Your task to perform on an android device: Go to notification settings Image 0: 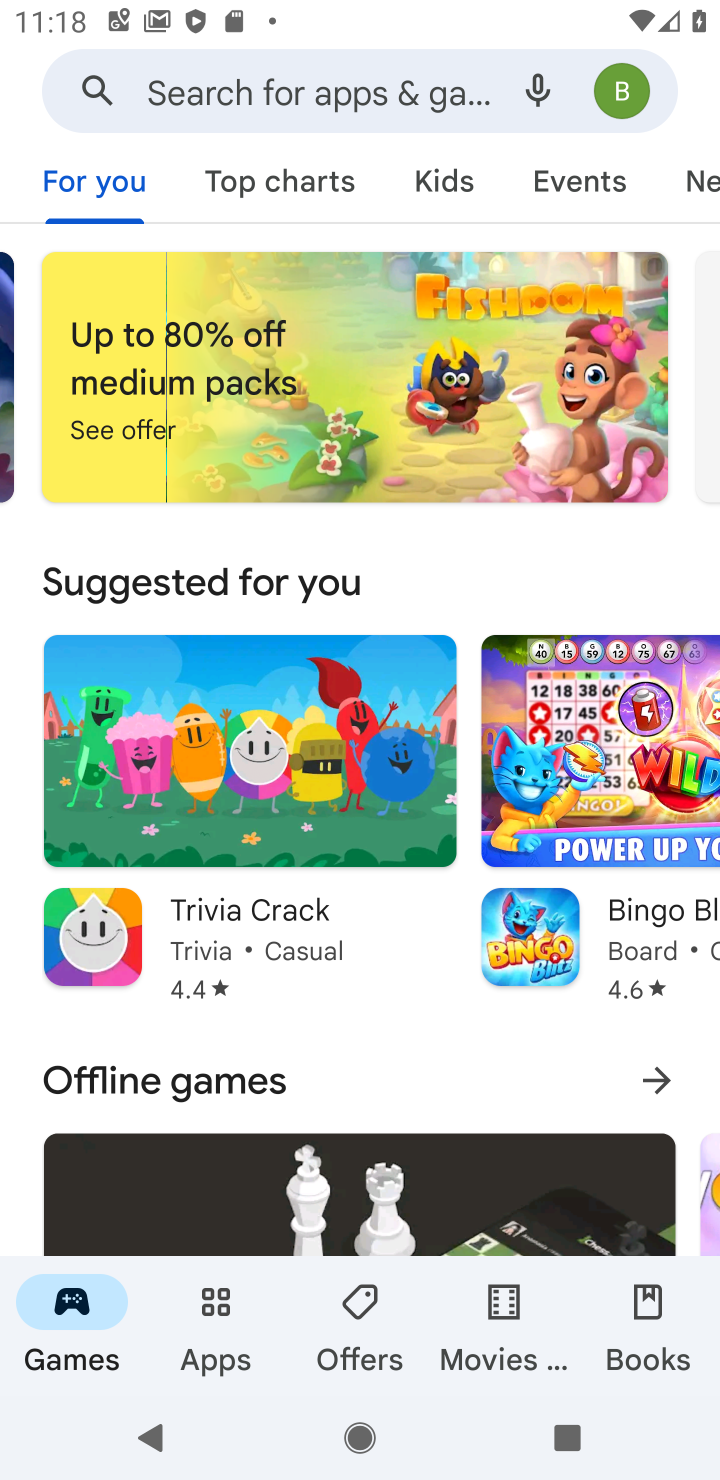
Step 0: press home button
Your task to perform on an android device: Go to notification settings Image 1: 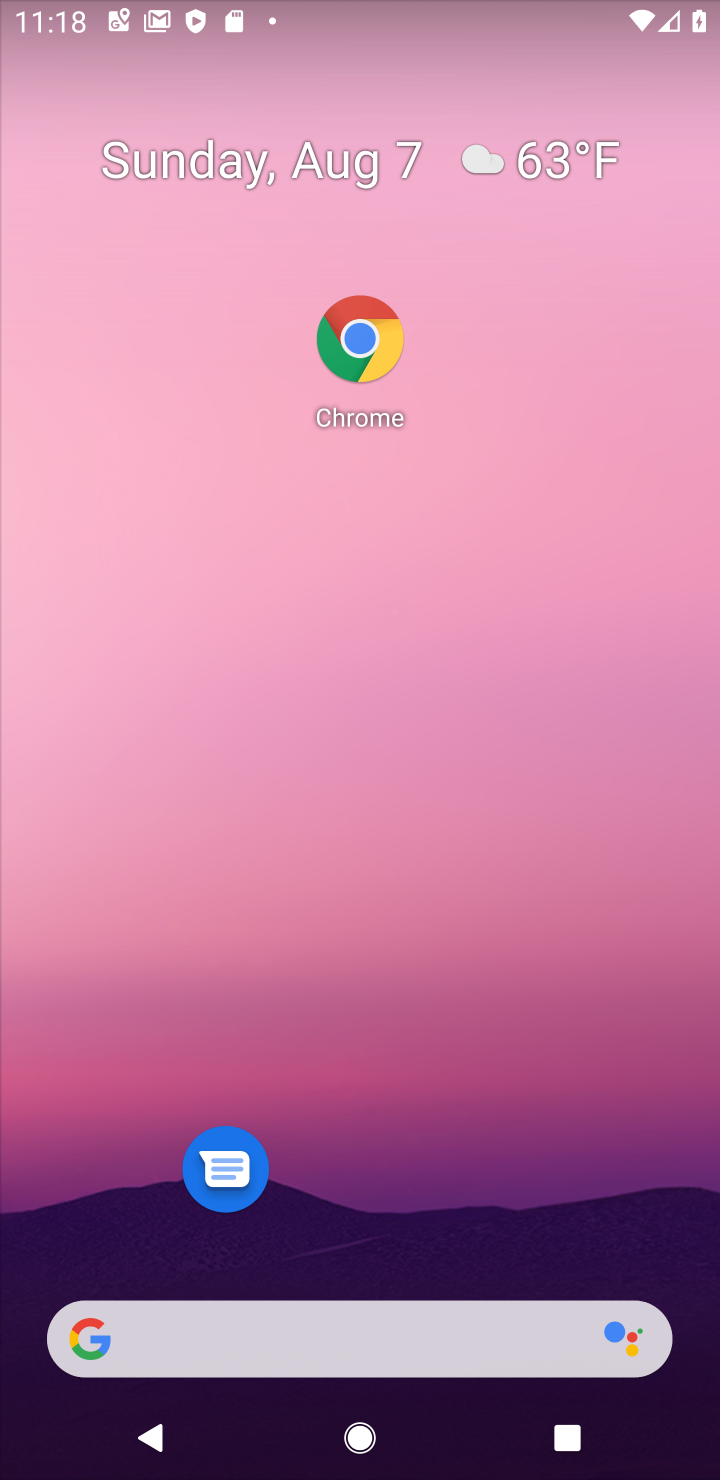
Step 1: drag from (314, 1132) to (302, 163)
Your task to perform on an android device: Go to notification settings Image 2: 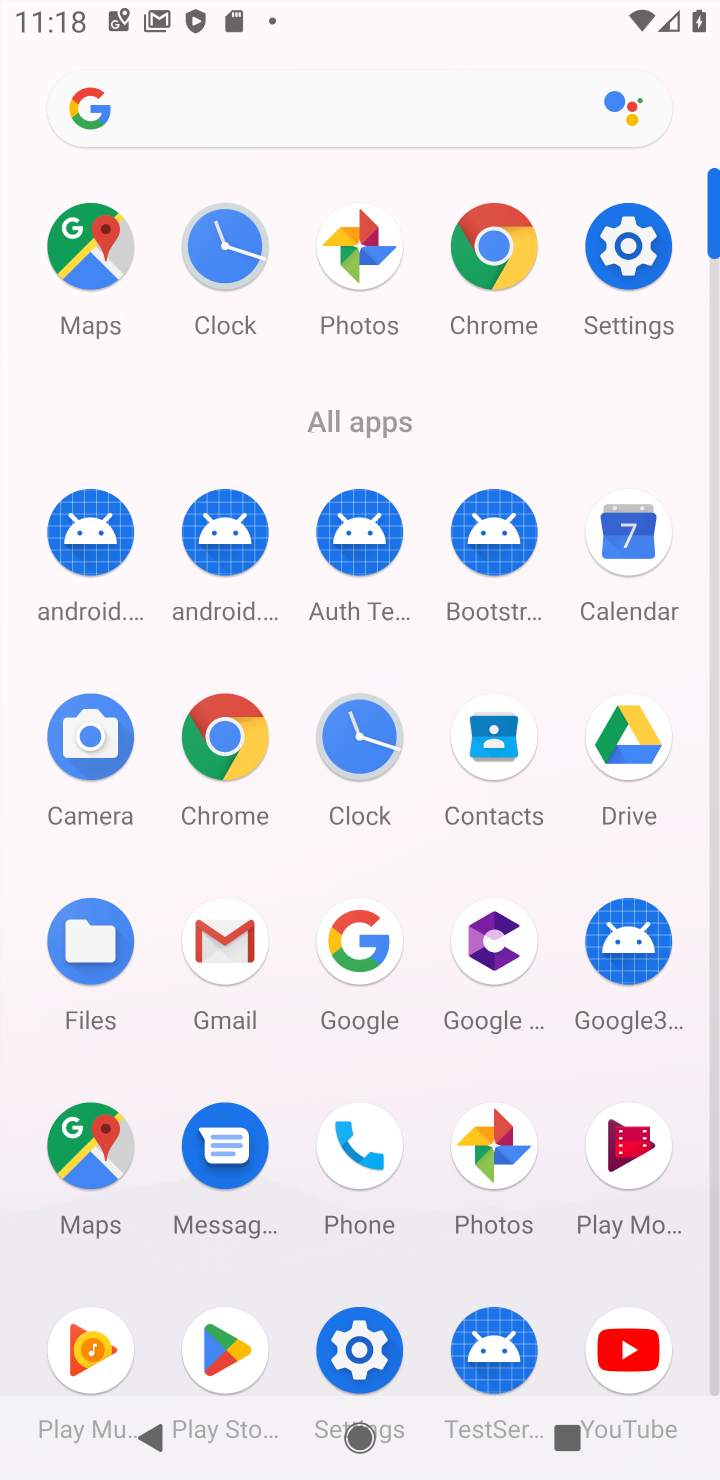
Step 2: click (651, 243)
Your task to perform on an android device: Go to notification settings Image 3: 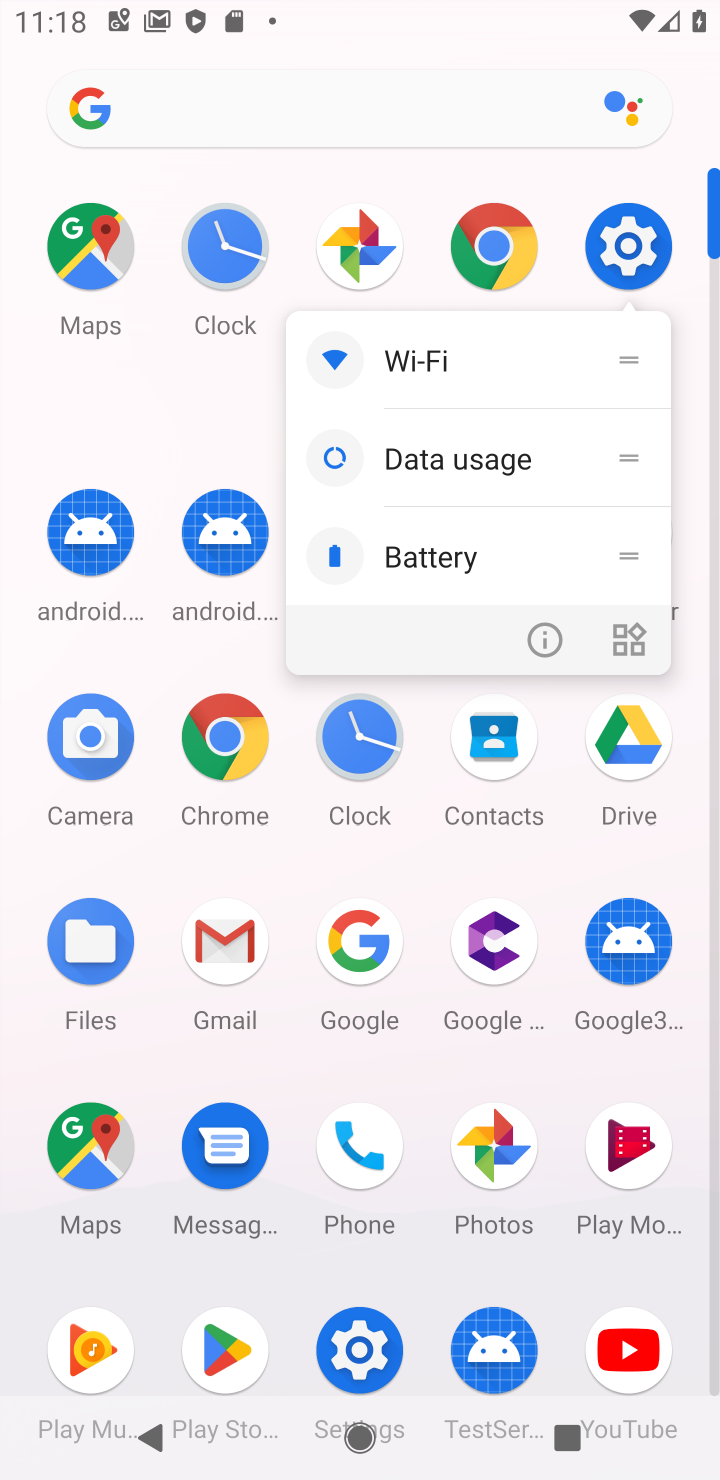
Step 3: click (651, 239)
Your task to perform on an android device: Go to notification settings Image 4: 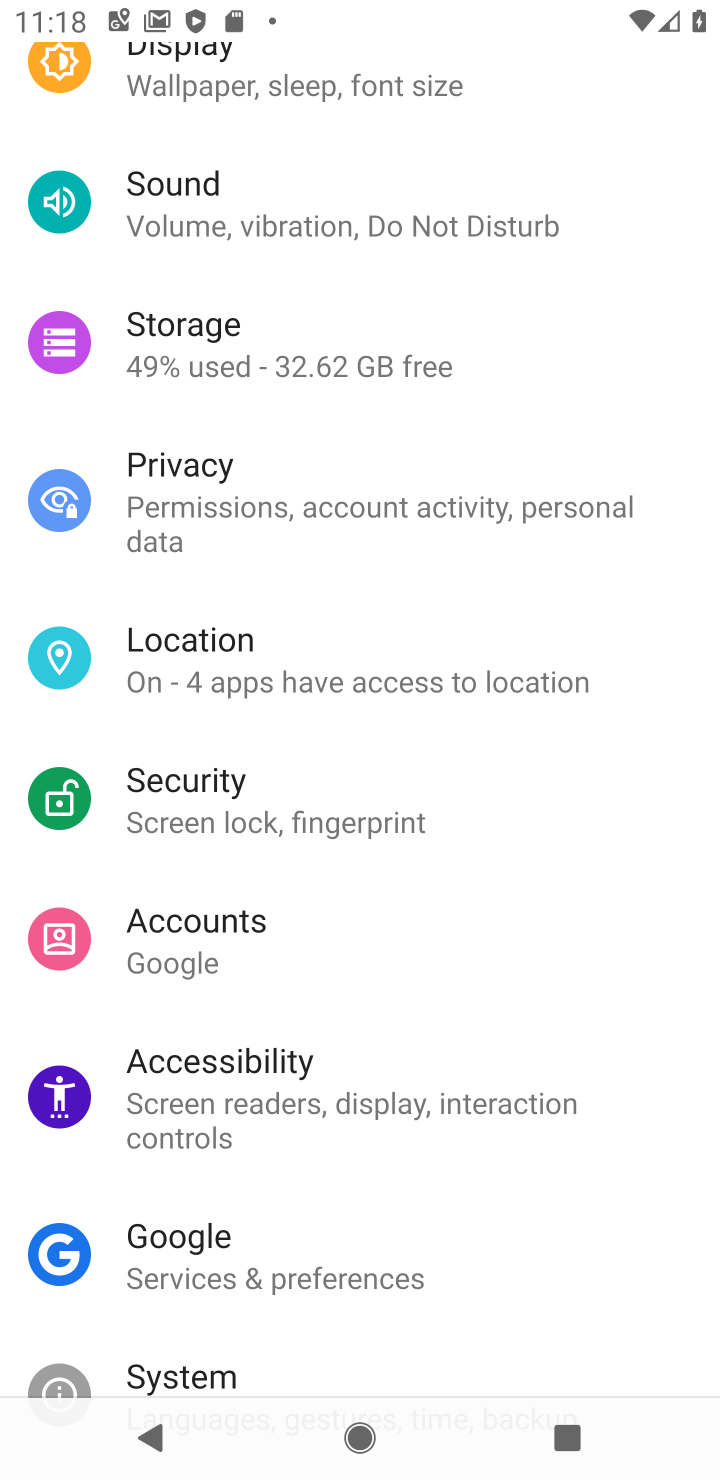
Step 4: drag from (361, 393) to (208, 1242)
Your task to perform on an android device: Go to notification settings Image 5: 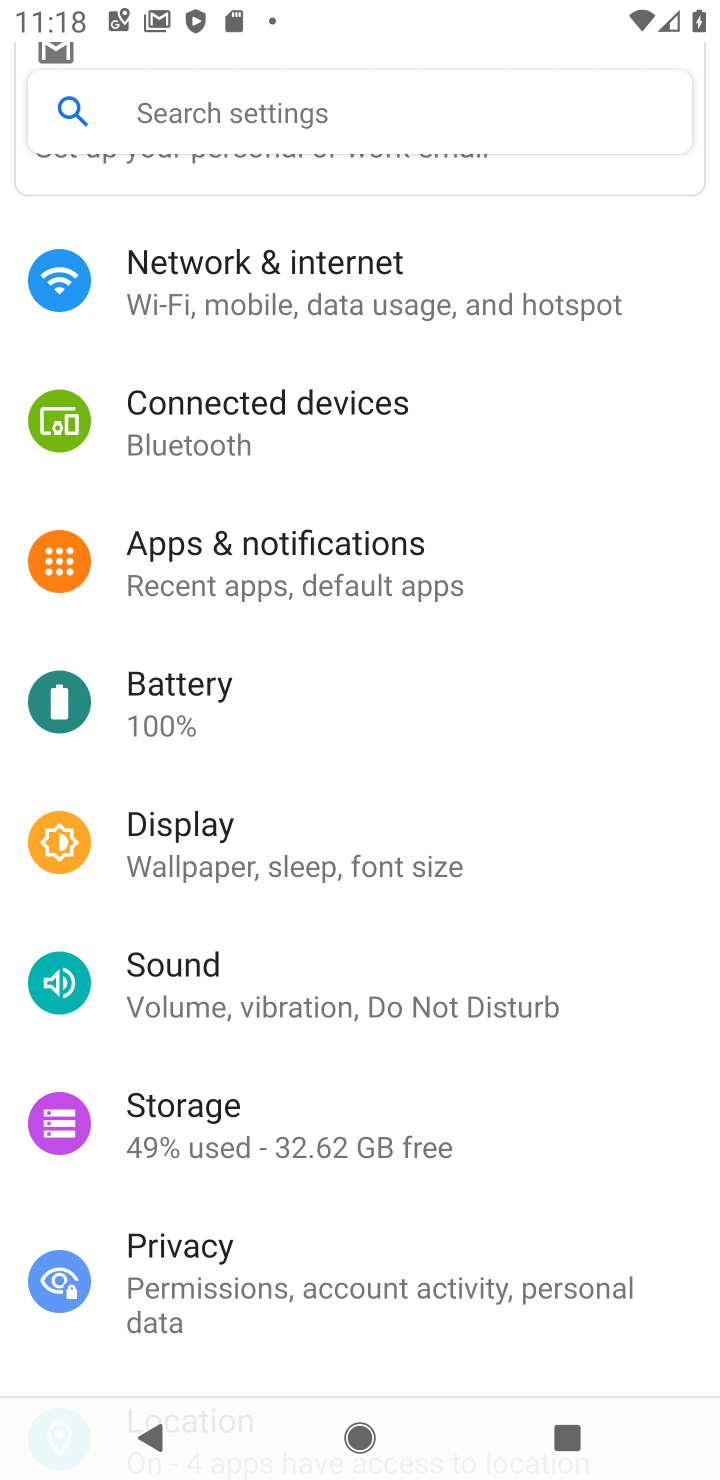
Step 5: click (280, 585)
Your task to perform on an android device: Go to notification settings Image 6: 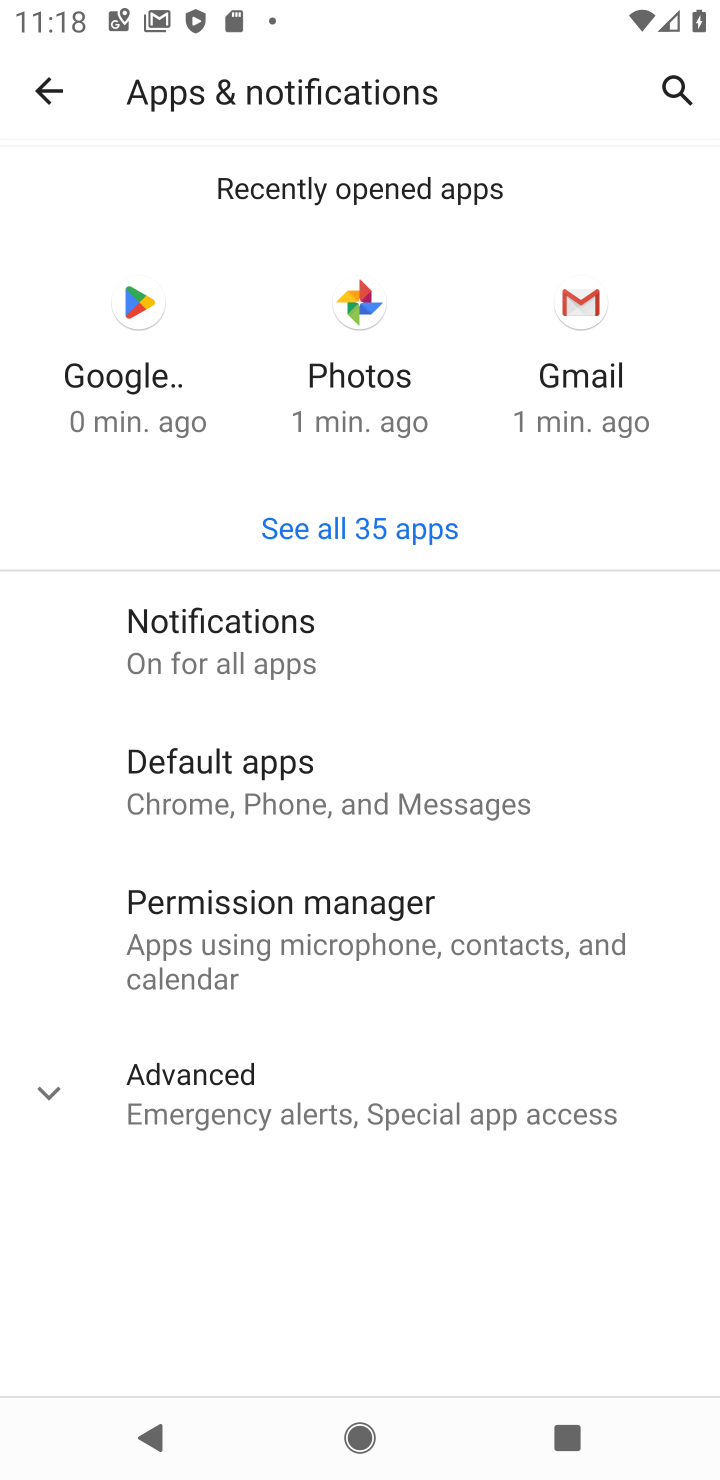
Step 6: click (225, 1091)
Your task to perform on an android device: Go to notification settings Image 7: 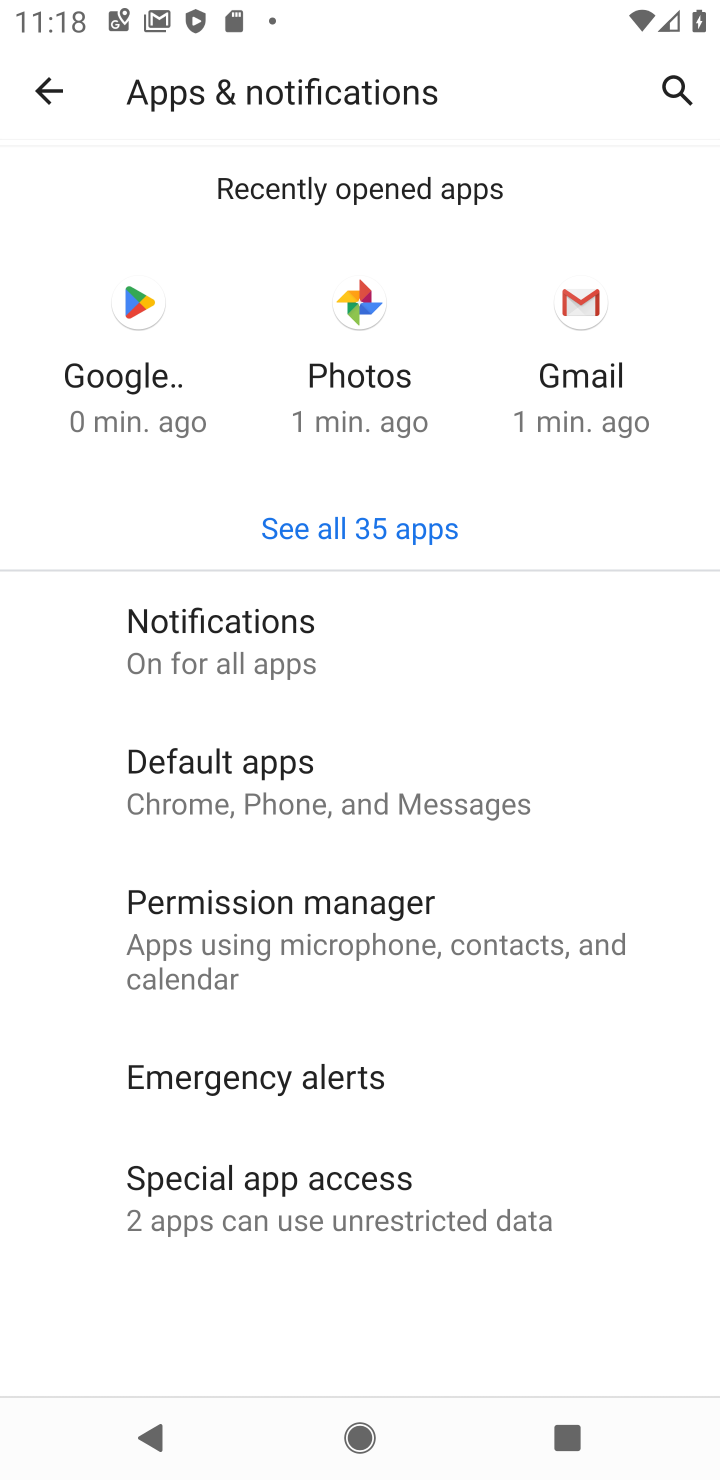
Step 7: task complete